Your task to perform on an android device: find which apps use the phone's location Image 0: 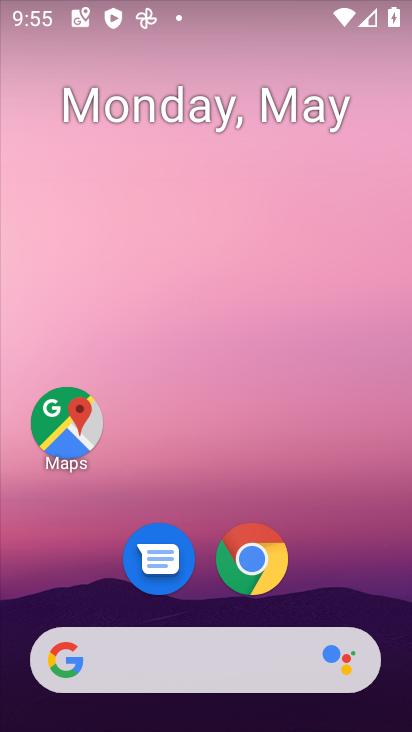
Step 0: drag from (296, 529) to (213, 167)
Your task to perform on an android device: find which apps use the phone's location Image 1: 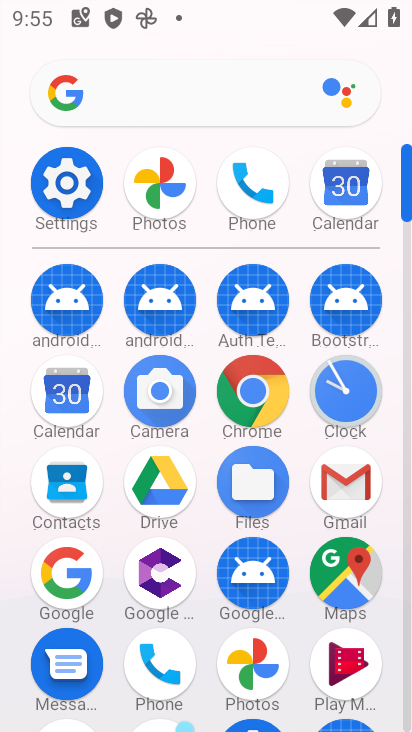
Step 1: click (67, 186)
Your task to perform on an android device: find which apps use the phone's location Image 2: 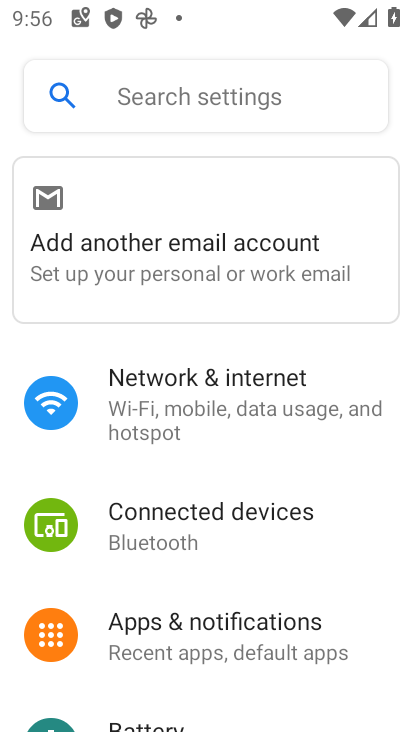
Step 2: drag from (209, 556) to (193, 225)
Your task to perform on an android device: find which apps use the phone's location Image 3: 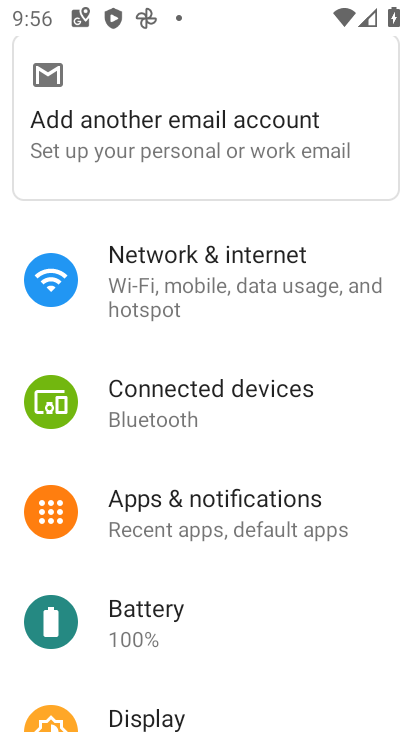
Step 3: drag from (228, 582) to (204, 352)
Your task to perform on an android device: find which apps use the phone's location Image 4: 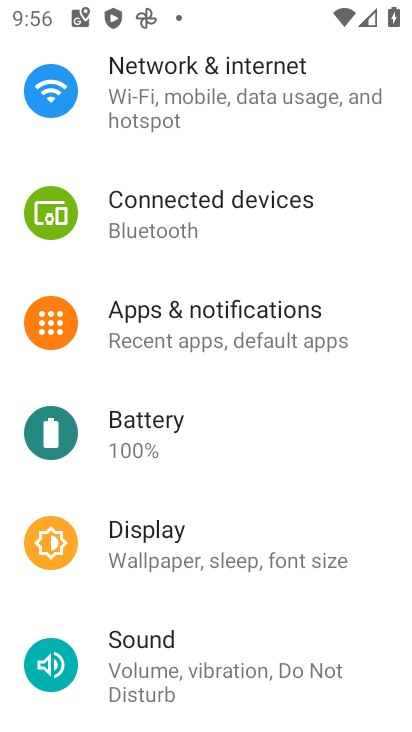
Step 4: drag from (236, 464) to (206, 198)
Your task to perform on an android device: find which apps use the phone's location Image 5: 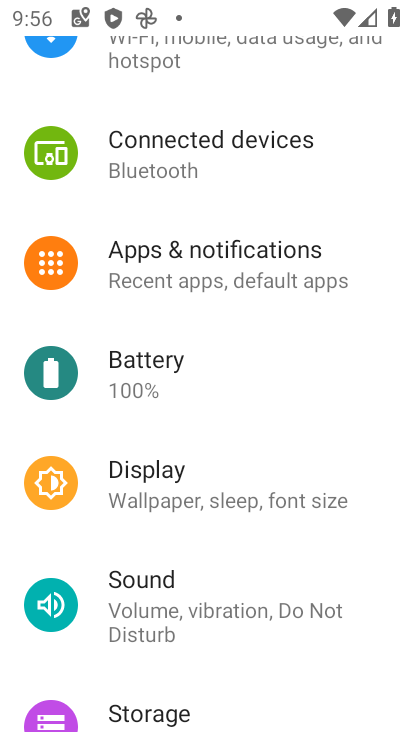
Step 5: drag from (256, 426) to (256, 208)
Your task to perform on an android device: find which apps use the phone's location Image 6: 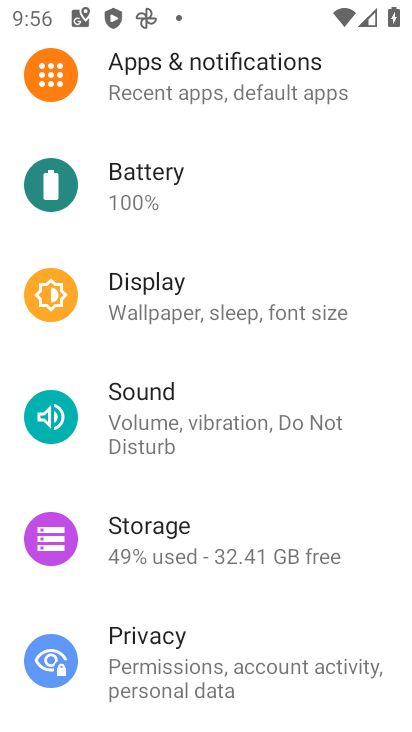
Step 6: drag from (226, 484) to (220, 261)
Your task to perform on an android device: find which apps use the phone's location Image 7: 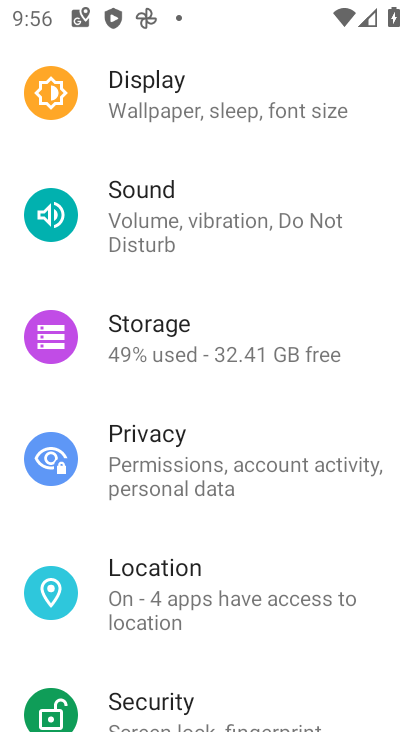
Step 7: click (179, 581)
Your task to perform on an android device: find which apps use the phone's location Image 8: 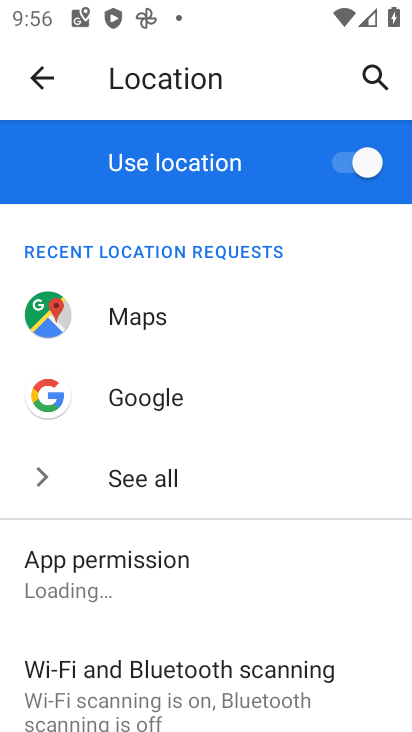
Step 8: click (126, 473)
Your task to perform on an android device: find which apps use the phone's location Image 9: 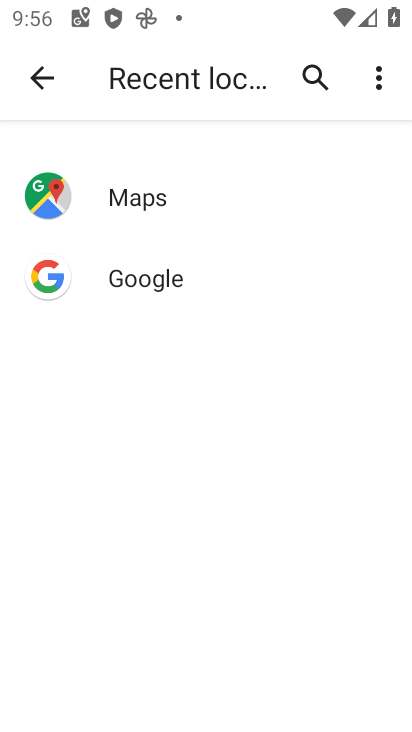
Step 9: task complete